Your task to perform on an android device: turn off smart reply in the gmail app Image 0: 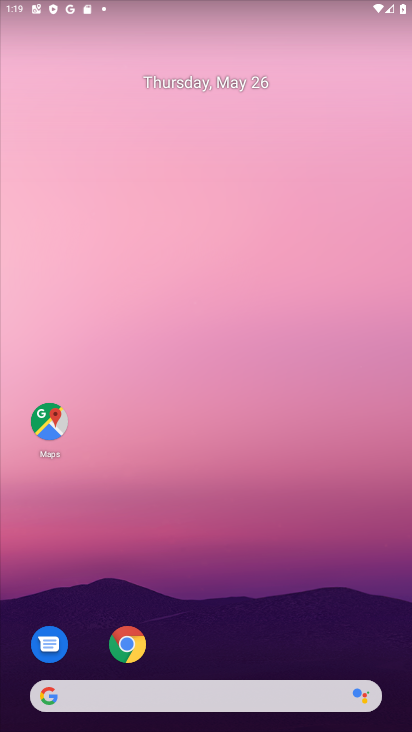
Step 0: drag from (255, 637) to (270, 244)
Your task to perform on an android device: turn off smart reply in the gmail app Image 1: 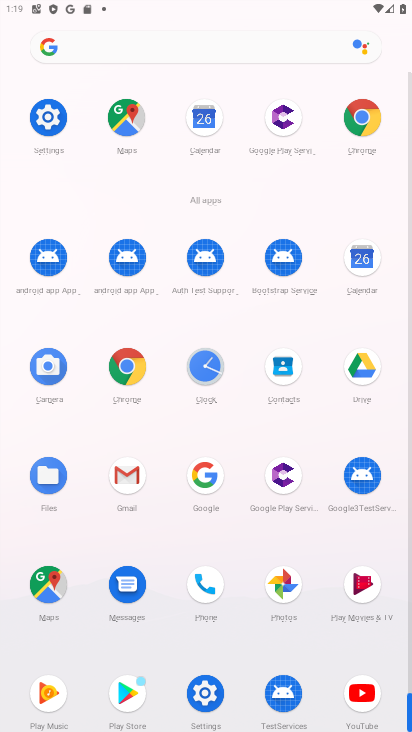
Step 1: click (120, 473)
Your task to perform on an android device: turn off smart reply in the gmail app Image 2: 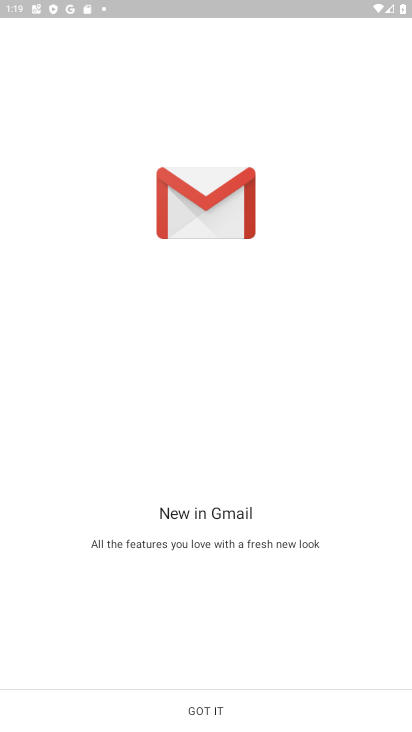
Step 2: click (206, 708)
Your task to perform on an android device: turn off smart reply in the gmail app Image 3: 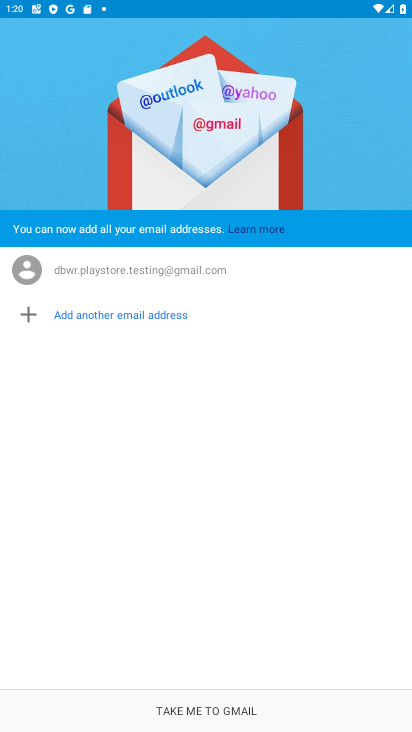
Step 3: click (206, 702)
Your task to perform on an android device: turn off smart reply in the gmail app Image 4: 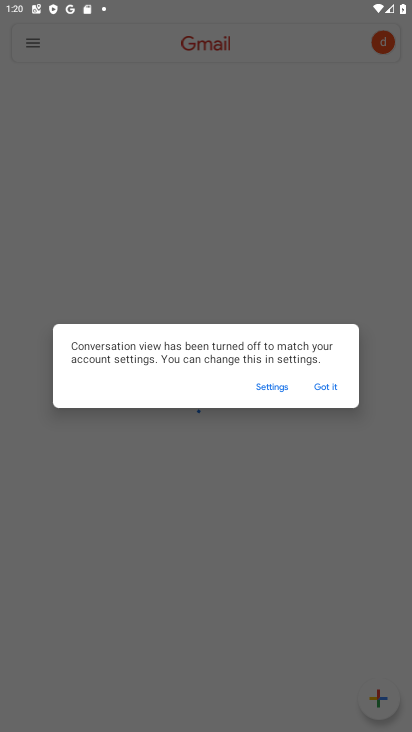
Step 4: click (323, 375)
Your task to perform on an android device: turn off smart reply in the gmail app Image 5: 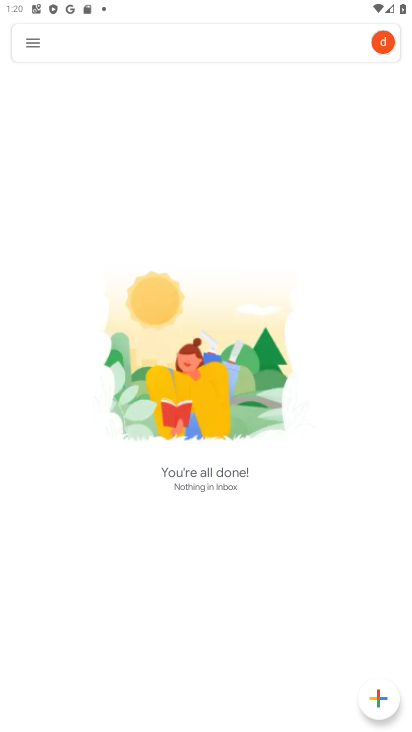
Step 5: click (29, 42)
Your task to perform on an android device: turn off smart reply in the gmail app Image 6: 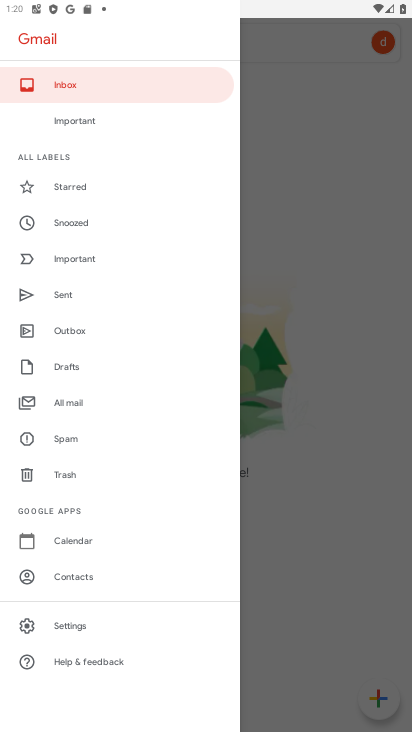
Step 6: click (82, 621)
Your task to perform on an android device: turn off smart reply in the gmail app Image 7: 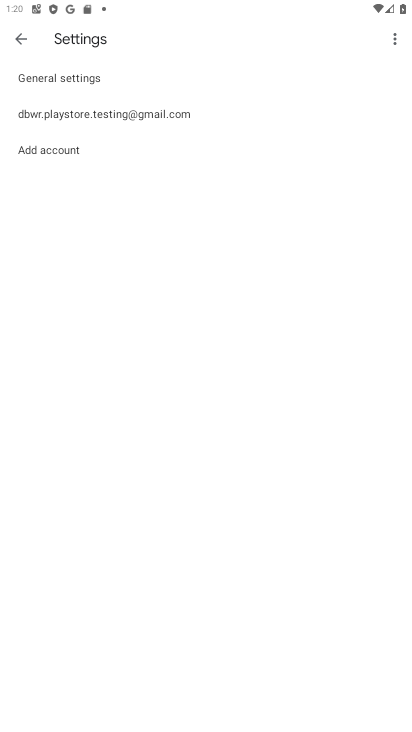
Step 7: click (138, 107)
Your task to perform on an android device: turn off smart reply in the gmail app Image 8: 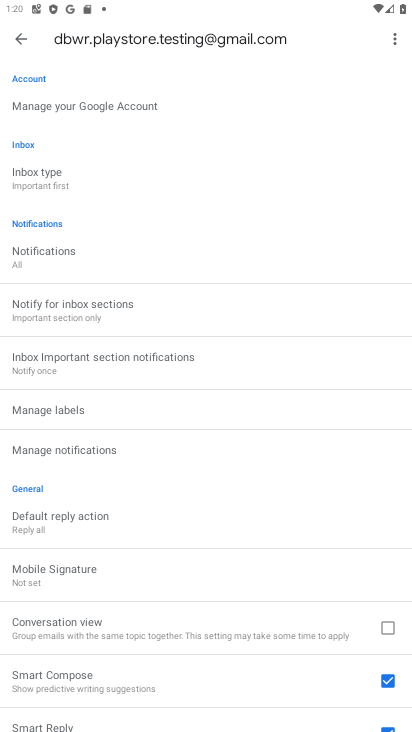
Step 8: drag from (138, 644) to (174, 514)
Your task to perform on an android device: turn off smart reply in the gmail app Image 9: 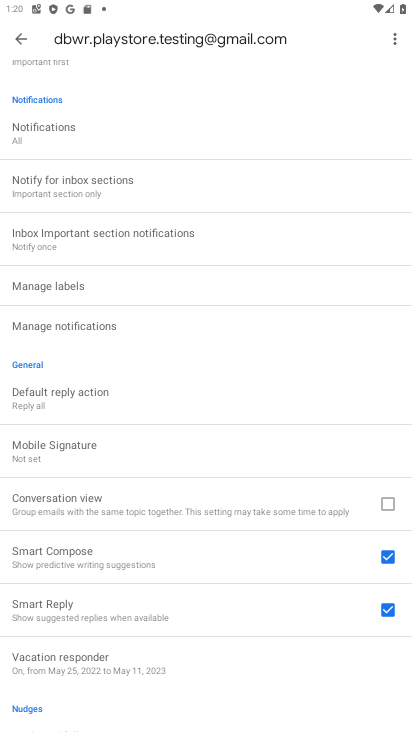
Step 9: click (388, 605)
Your task to perform on an android device: turn off smart reply in the gmail app Image 10: 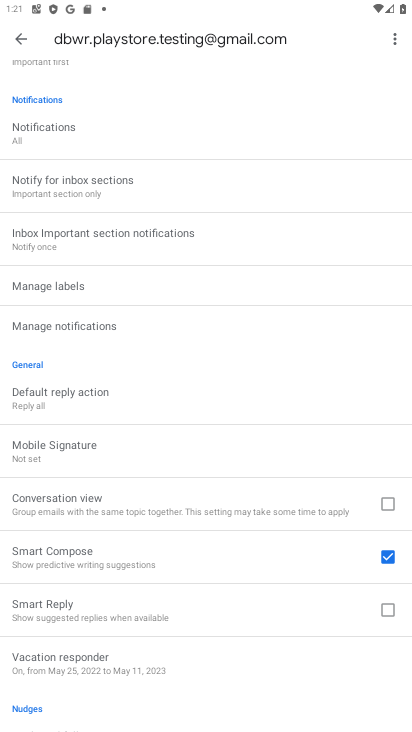
Step 10: task complete